Your task to perform on an android device: Open privacy settings Image 0: 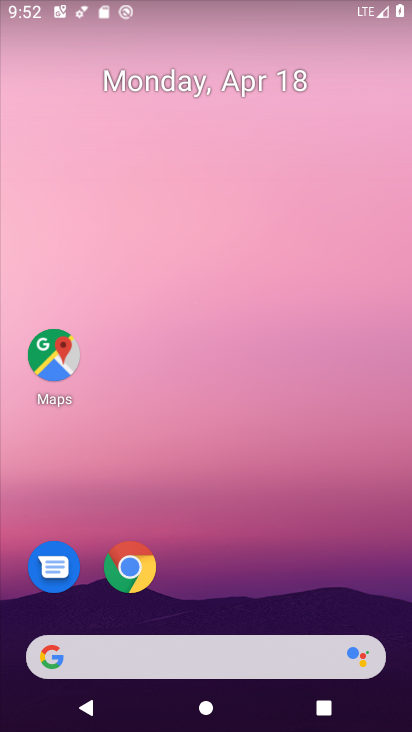
Step 0: drag from (333, 563) to (370, 104)
Your task to perform on an android device: Open privacy settings Image 1: 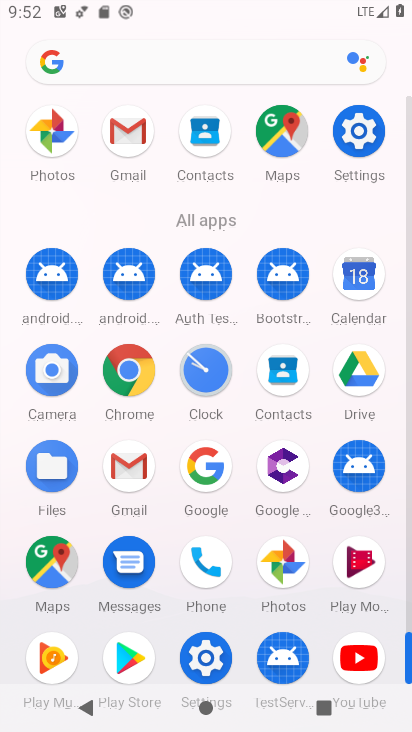
Step 1: click (369, 141)
Your task to perform on an android device: Open privacy settings Image 2: 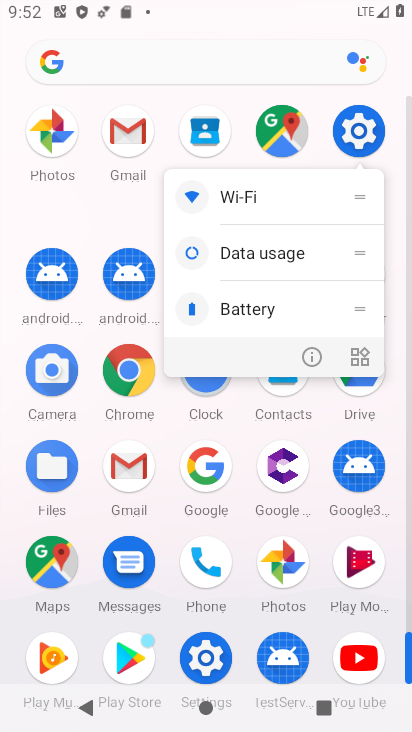
Step 2: click (361, 147)
Your task to perform on an android device: Open privacy settings Image 3: 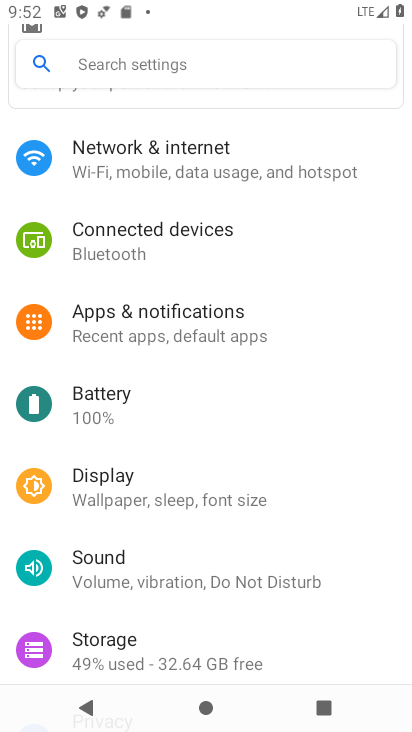
Step 3: drag from (253, 537) to (313, 276)
Your task to perform on an android device: Open privacy settings Image 4: 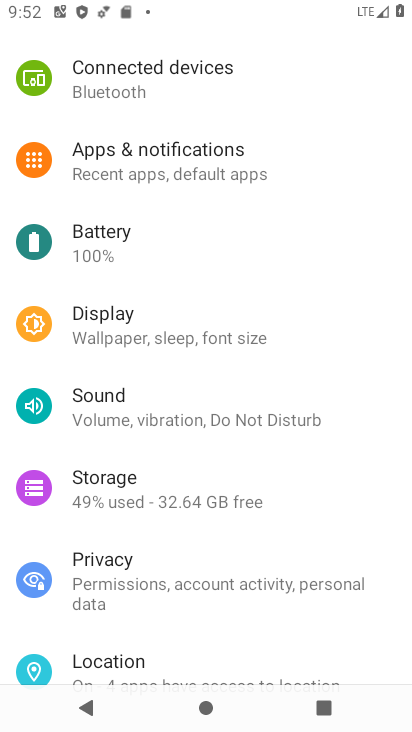
Step 4: drag from (322, 560) to (376, 273)
Your task to perform on an android device: Open privacy settings Image 5: 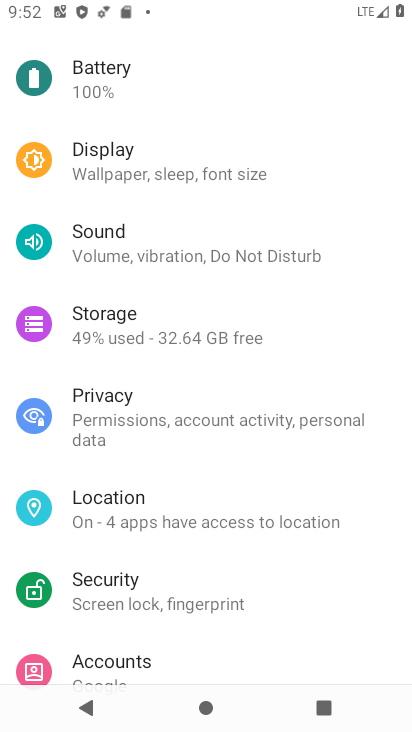
Step 5: drag from (337, 622) to (377, 351)
Your task to perform on an android device: Open privacy settings Image 6: 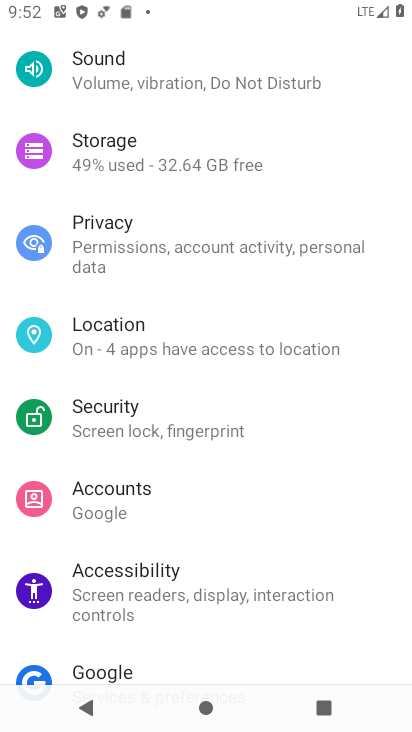
Step 6: click (126, 239)
Your task to perform on an android device: Open privacy settings Image 7: 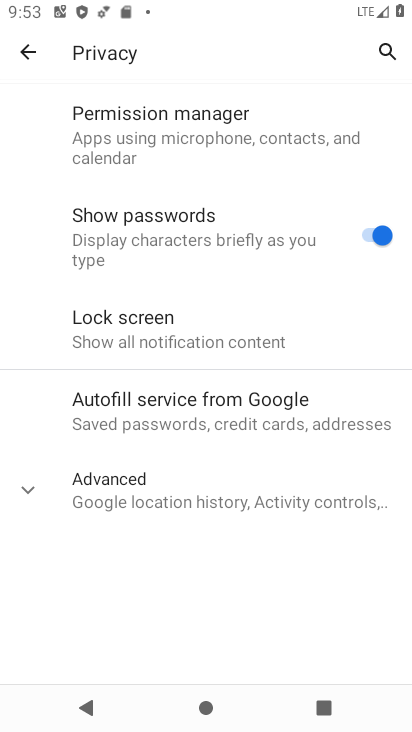
Step 7: task complete